Your task to perform on an android device: Show me popular games on the Play Store Image 0: 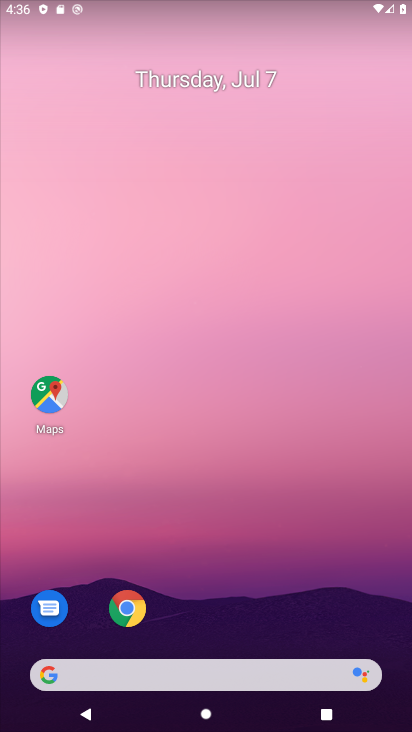
Step 0: press home button
Your task to perform on an android device: Show me popular games on the Play Store Image 1: 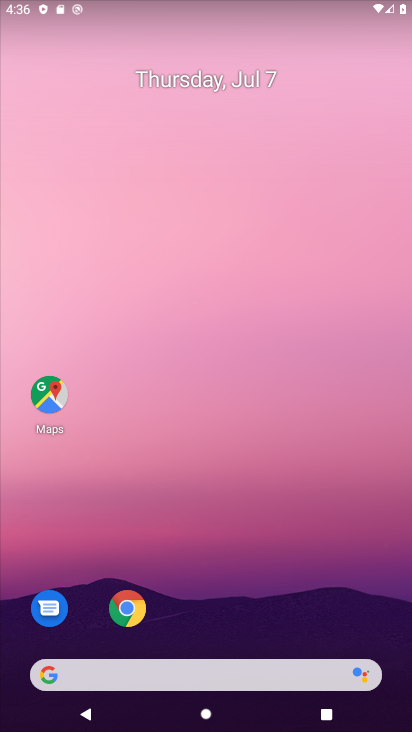
Step 1: drag from (203, 642) to (235, 80)
Your task to perform on an android device: Show me popular games on the Play Store Image 2: 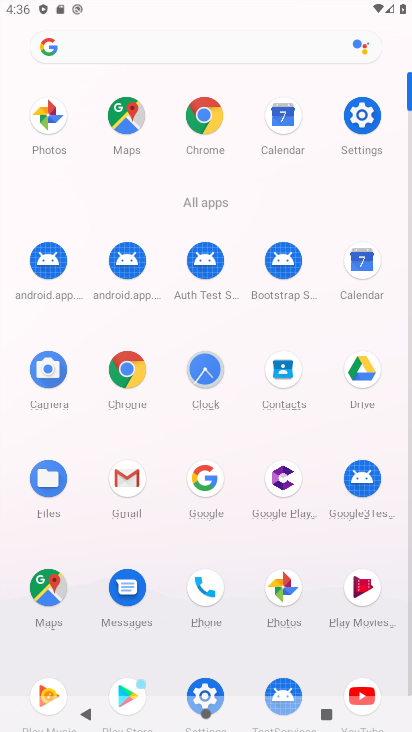
Step 2: drag from (219, 644) to (240, 255)
Your task to perform on an android device: Show me popular games on the Play Store Image 3: 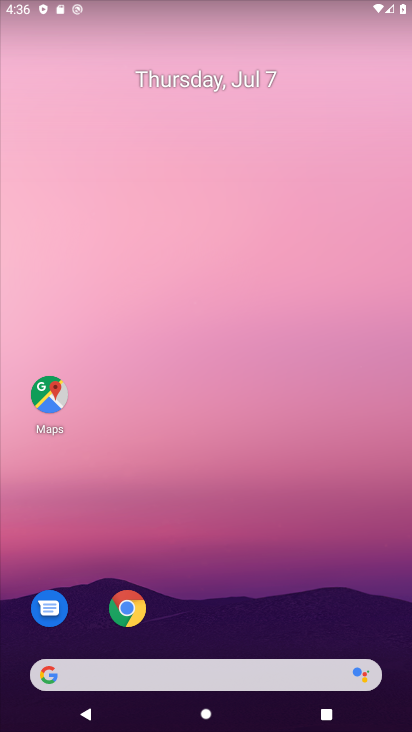
Step 3: drag from (220, 635) to (273, 147)
Your task to perform on an android device: Show me popular games on the Play Store Image 4: 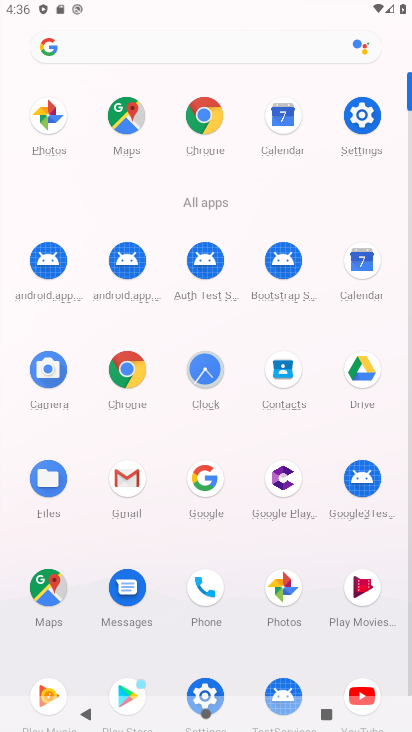
Step 4: drag from (248, 549) to (257, 83)
Your task to perform on an android device: Show me popular games on the Play Store Image 5: 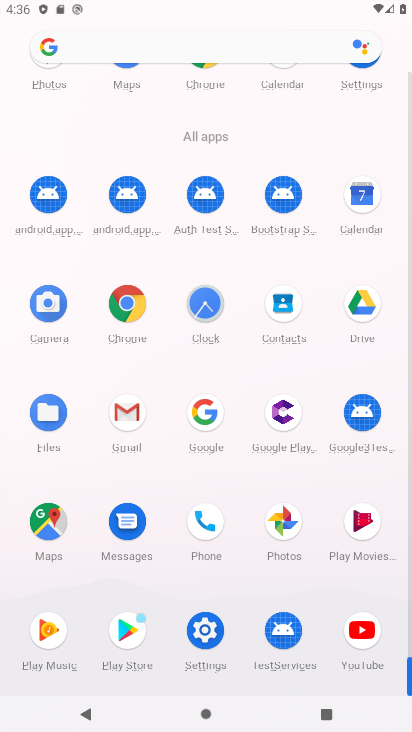
Step 5: click (129, 623)
Your task to perform on an android device: Show me popular games on the Play Store Image 6: 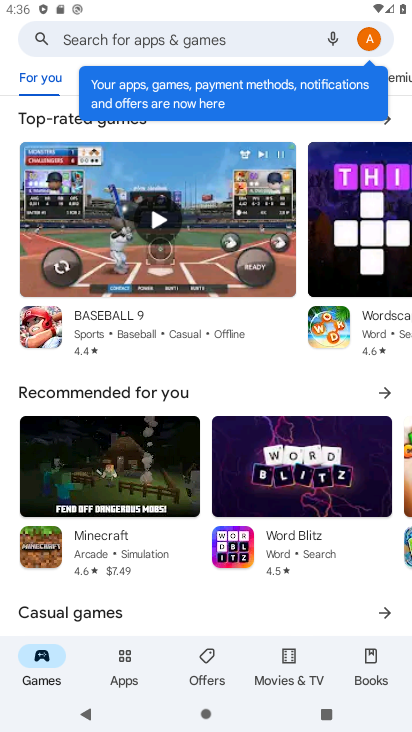
Step 6: drag from (193, 610) to (240, 276)
Your task to perform on an android device: Show me popular games on the Play Store Image 7: 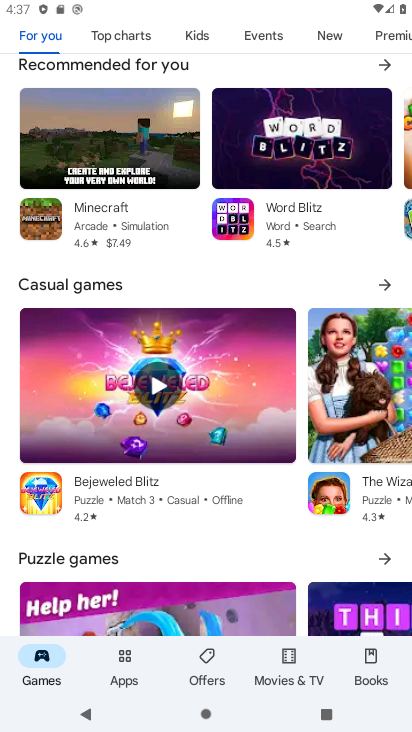
Step 7: drag from (204, 554) to (240, 134)
Your task to perform on an android device: Show me popular games on the Play Store Image 8: 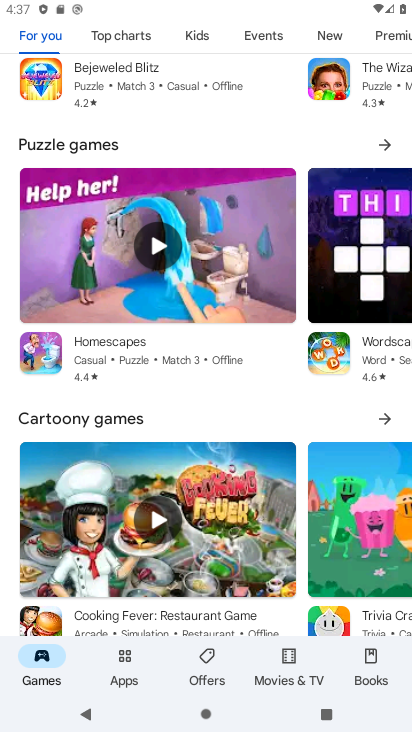
Step 8: drag from (201, 393) to (224, 179)
Your task to perform on an android device: Show me popular games on the Play Store Image 9: 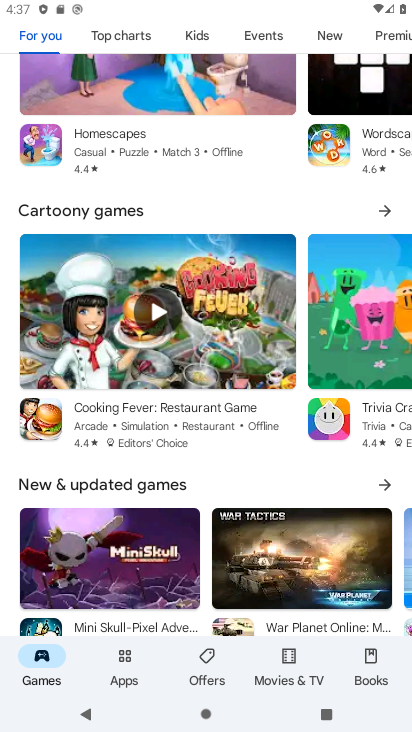
Step 9: drag from (205, 540) to (237, 200)
Your task to perform on an android device: Show me popular games on the Play Store Image 10: 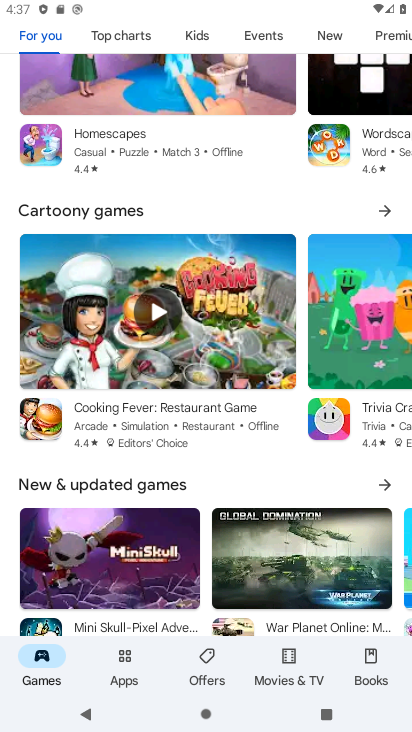
Step 10: drag from (203, 575) to (225, 163)
Your task to perform on an android device: Show me popular games on the Play Store Image 11: 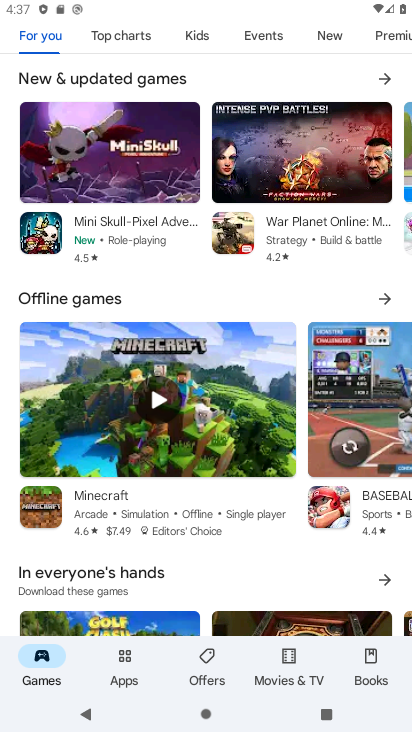
Step 11: drag from (222, 583) to (251, 181)
Your task to perform on an android device: Show me popular games on the Play Store Image 12: 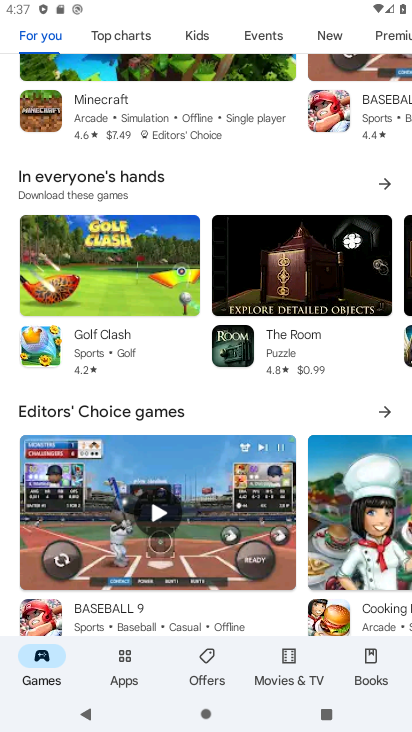
Step 12: drag from (220, 607) to (243, 109)
Your task to perform on an android device: Show me popular games on the Play Store Image 13: 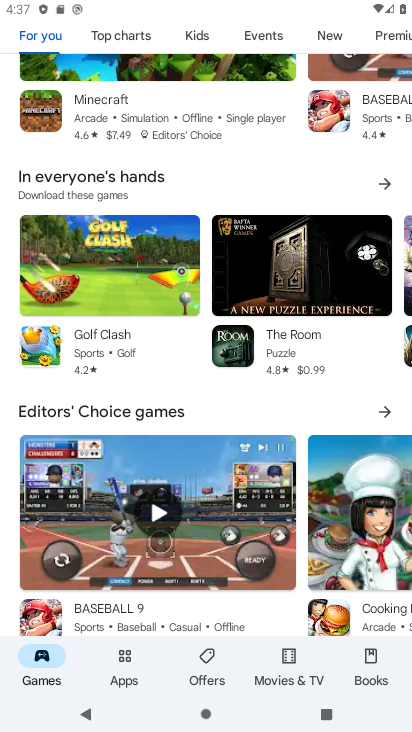
Step 13: drag from (246, 415) to (265, 60)
Your task to perform on an android device: Show me popular games on the Play Store Image 14: 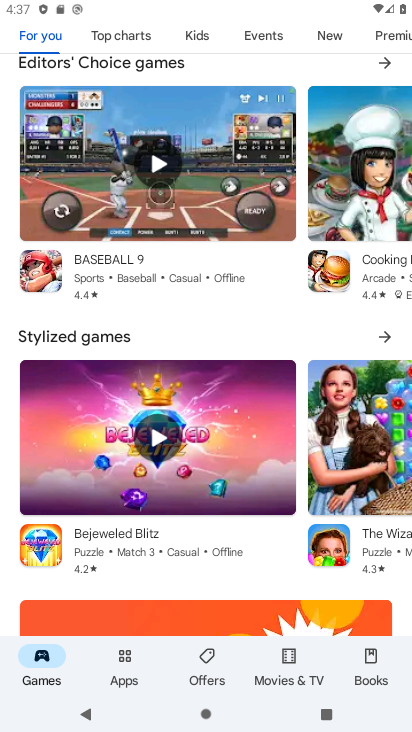
Step 14: drag from (227, 79) to (225, 726)
Your task to perform on an android device: Show me popular games on the Play Store Image 15: 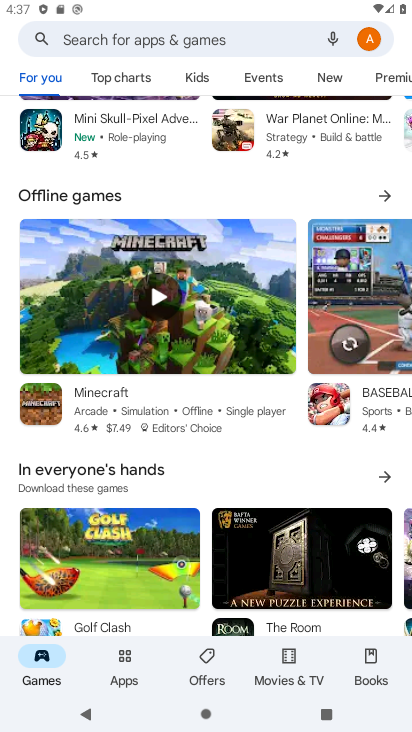
Step 15: drag from (213, 156) to (221, 709)
Your task to perform on an android device: Show me popular games on the Play Store Image 16: 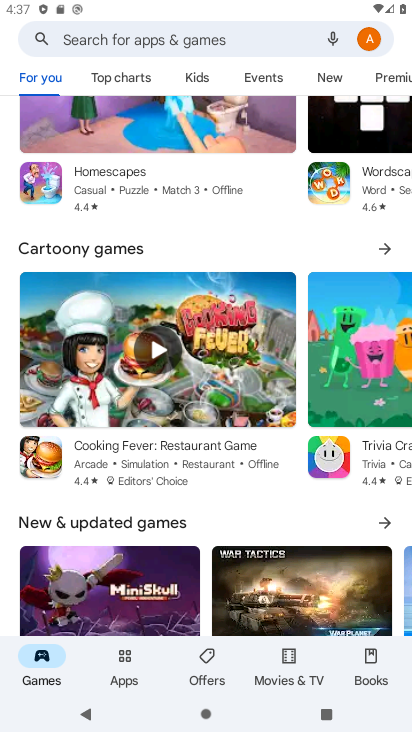
Step 16: drag from (205, 227) to (223, 719)
Your task to perform on an android device: Show me popular games on the Play Store Image 17: 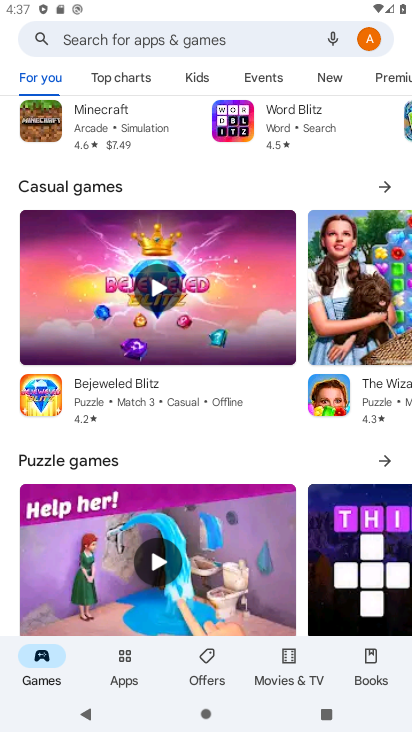
Step 17: drag from (226, 169) to (227, 658)
Your task to perform on an android device: Show me popular games on the Play Store Image 18: 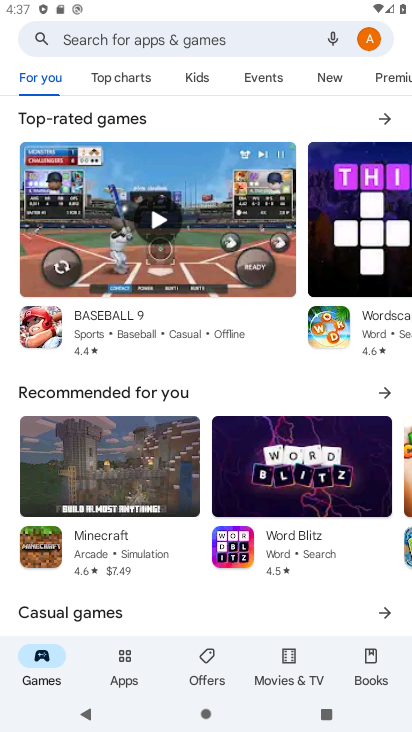
Step 18: drag from (202, 205) to (195, 587)
Your task to perform on an android device: Show me popular games on the Play Store Image 19: 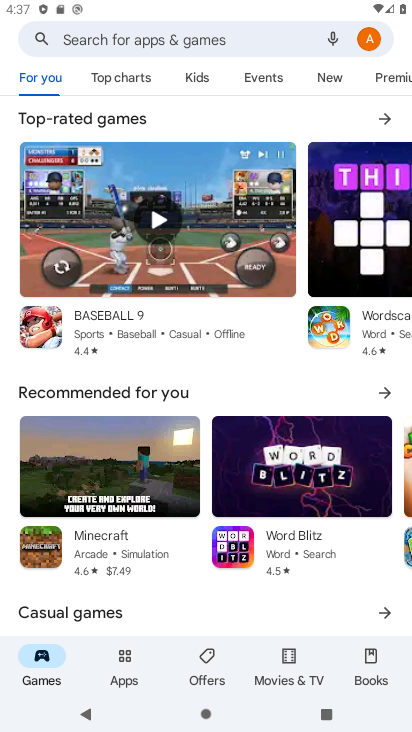
Step 19: drag from (292, 75) to (109, 86)
Your task to perform on an android device: Show me popular games on the Play Store Image 20: 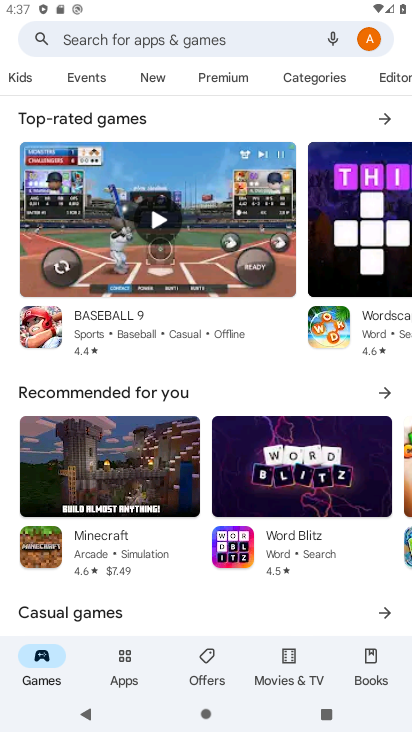
Step 20: click (300, 80)
Your task to perform on an android device: Show me popular games on the Play Store Image 21: 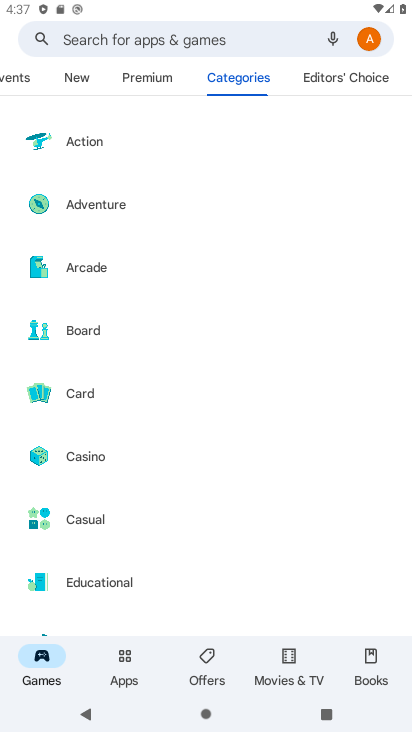
Step 21: task complete